Your task to perform on an android device: Open maps Image 0: 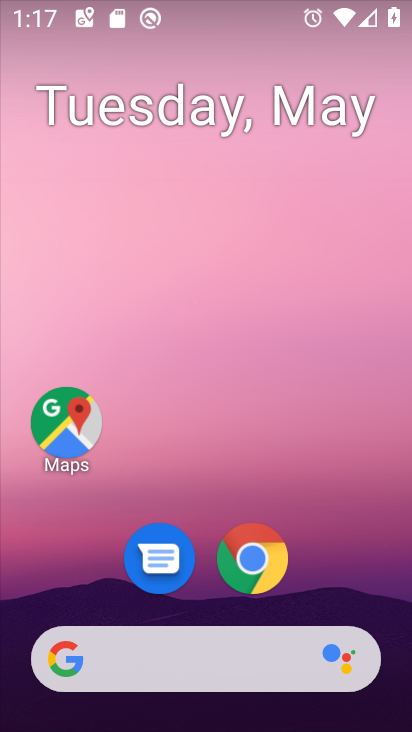
Step 0: click (62, 415)
Your task to perform on an android device: Open maps Image 1: 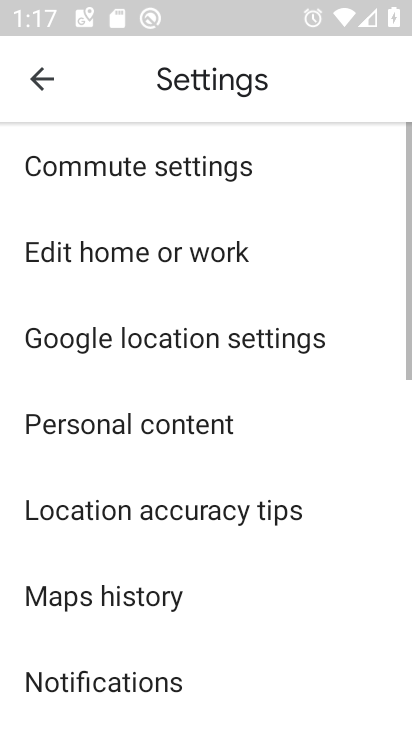
Step 1: click (52, 101)
Your task to perform on an android device: Open maps Image 2: 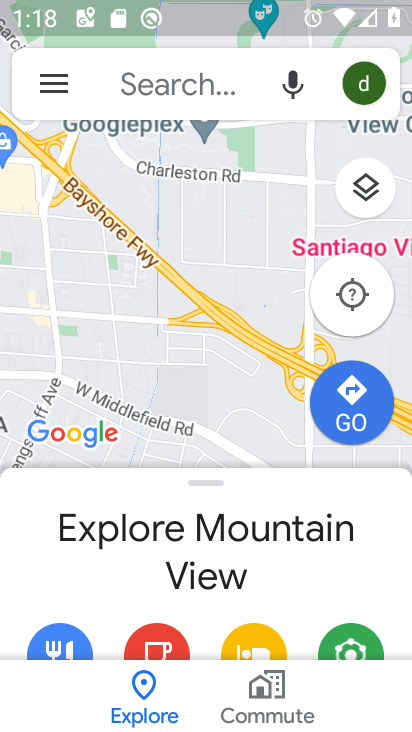
Step 2: task complete